Your task to perform on an android device: turn notification dots off Image 0: 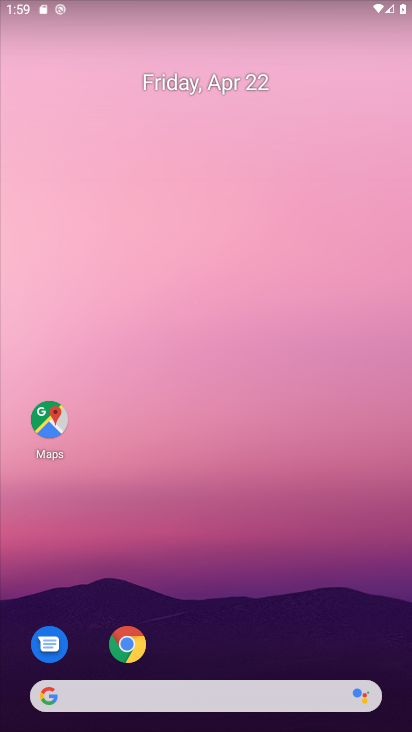
Step 0: drag from (234, 622) to (236, 32)
Your task to perform on an android device: turn notification dots off Image 1: 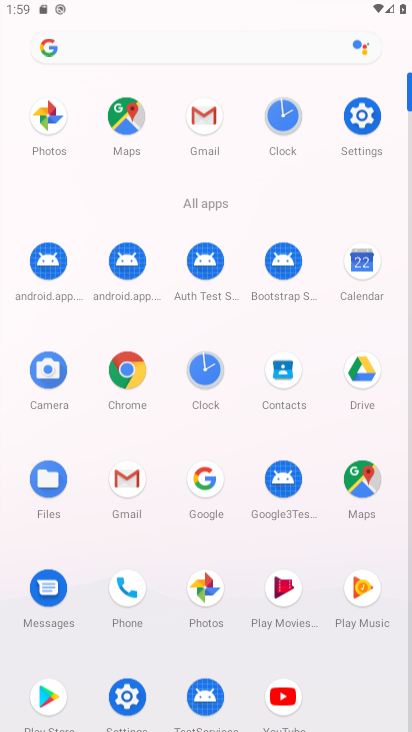
Step 1: drag from (229, 496) to (252, 105)
Your task to perform on an android device: turn notification dots off Image 2: 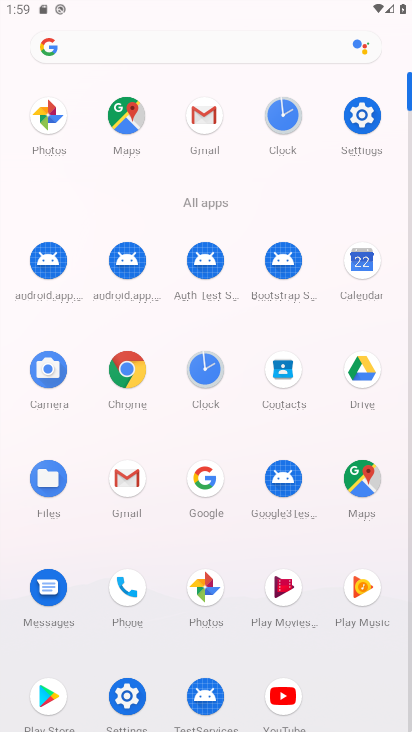
Step 2: click (125, 697)
Your task to perform on an android device: turn notification dots off Image 3: 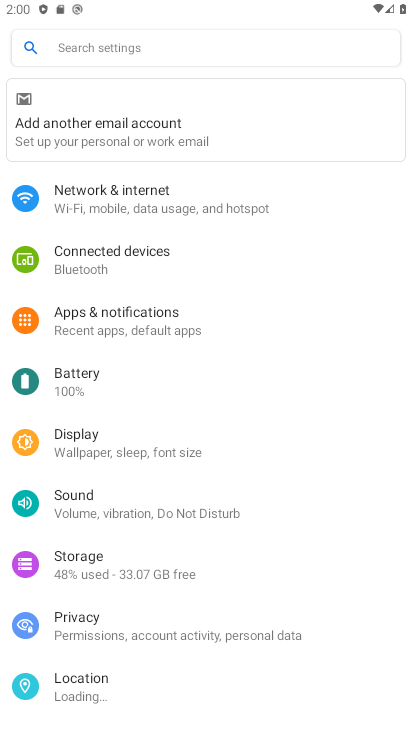
Step 3: click (128, 332)
Your task to perform on an android device: turn notification dots off Image 4: 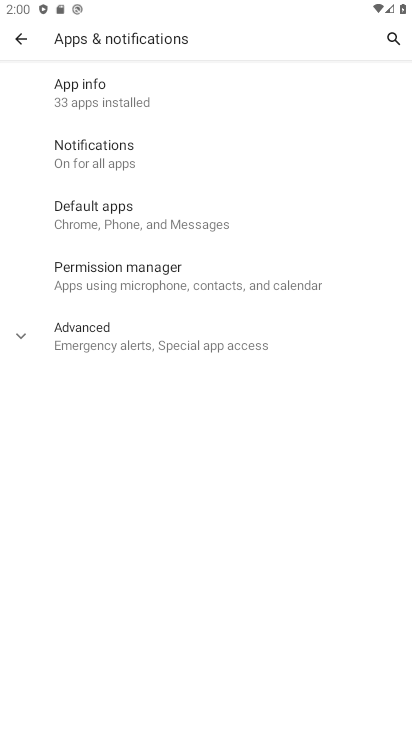
Step 4: click (96, 146)
Your task to perform on an android device: turn notification dots off Image 5: 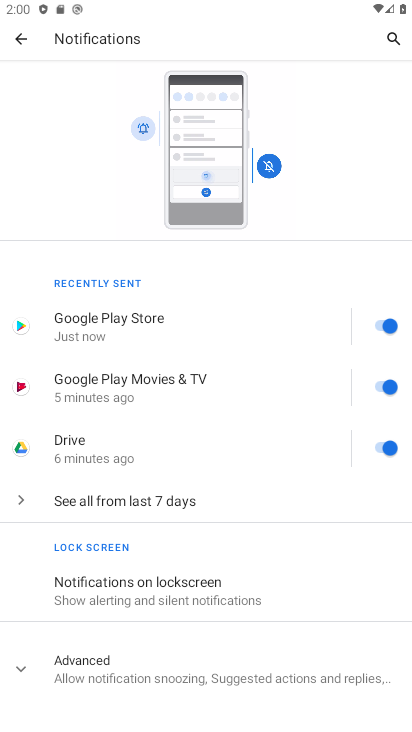
Step 5: drag from (197, 566) to (274, 69)
Your task to perform on an android device: turn notification dots off Image 6: 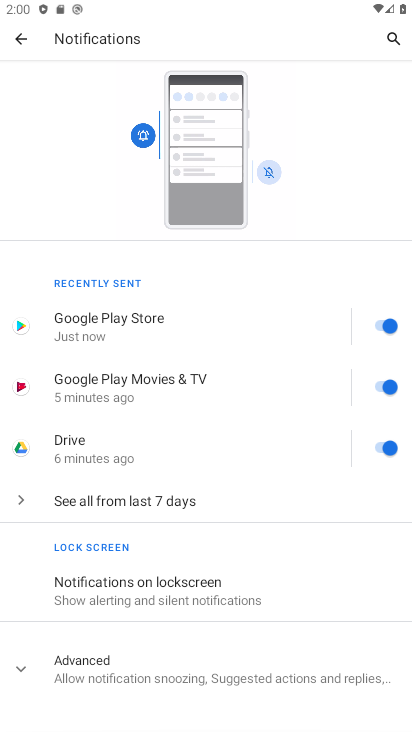
Step 6: click (140, 682)
Your task to perform on an android device: turn notification dots off Image 7: 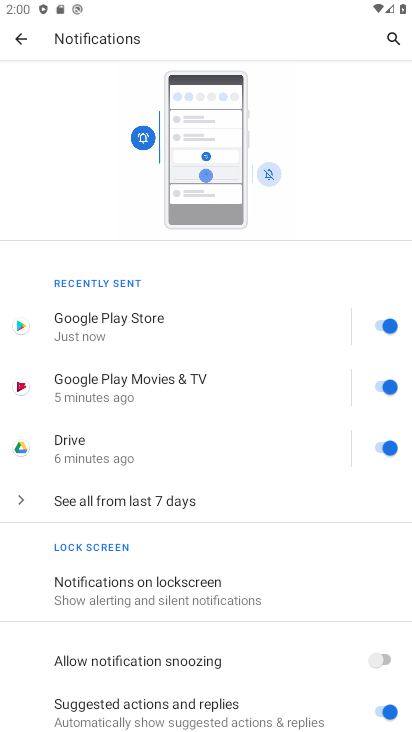
Step 7: drag from (306, 653) to (354, 222)
Your task to perform on an android device: turn notification dots off Image 8: 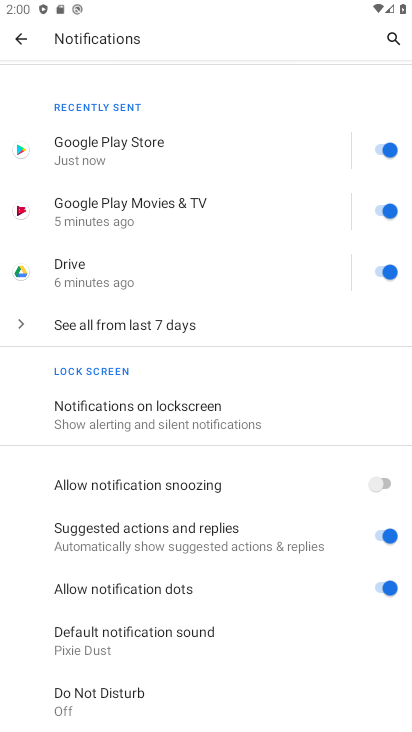
Step 8: click (356, 595)
Your task to perform on an android device: turn notification dots off Image 9: 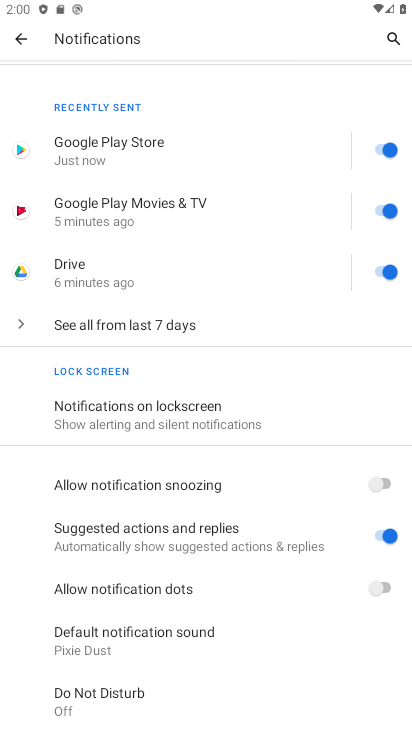
Step 9: task complete